Your task to perform on an android device: change notifications settings Image 0: 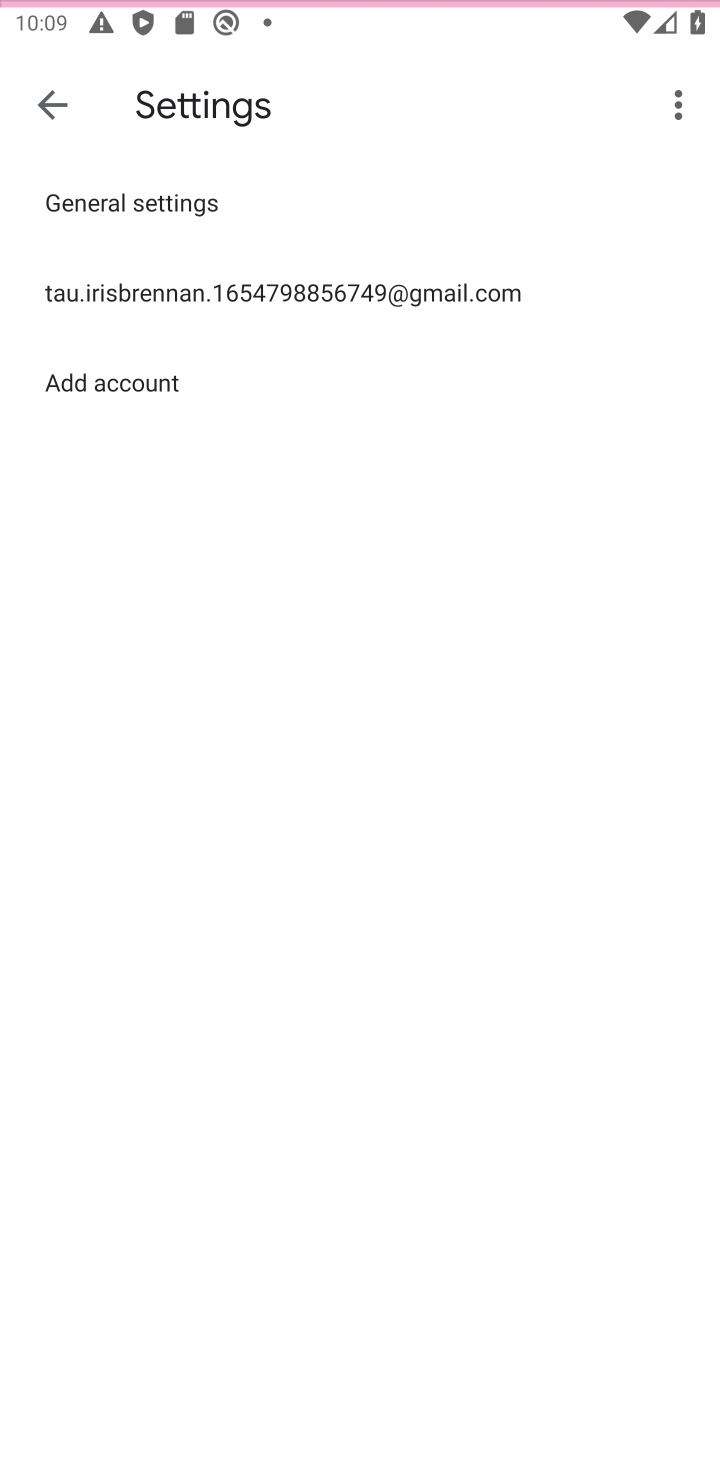
Step 0: press home button
Your task to perform on an android device: change notifications settings Image 1: 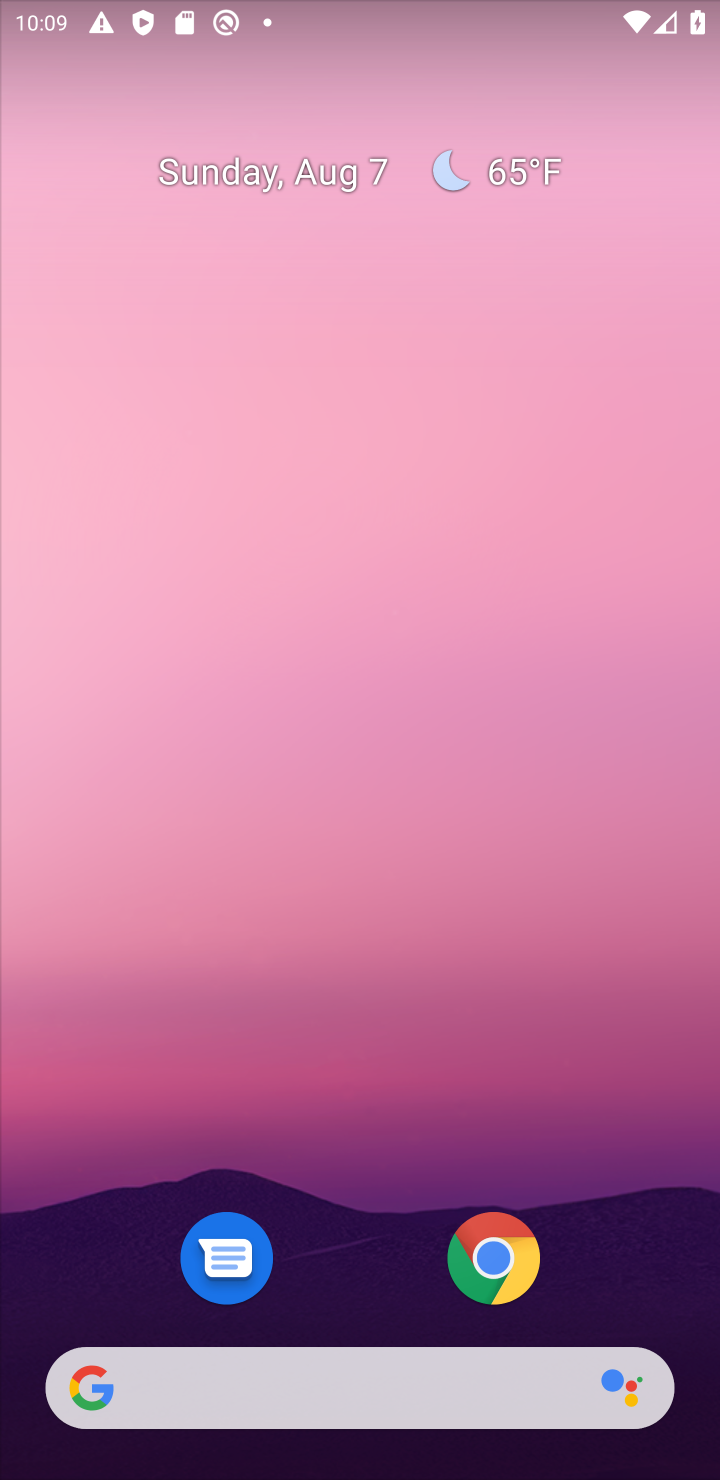
Step 1: drag from (583, 1221) to (432, 16)
Your task to perform on an android device: change notifications settings Image 2: 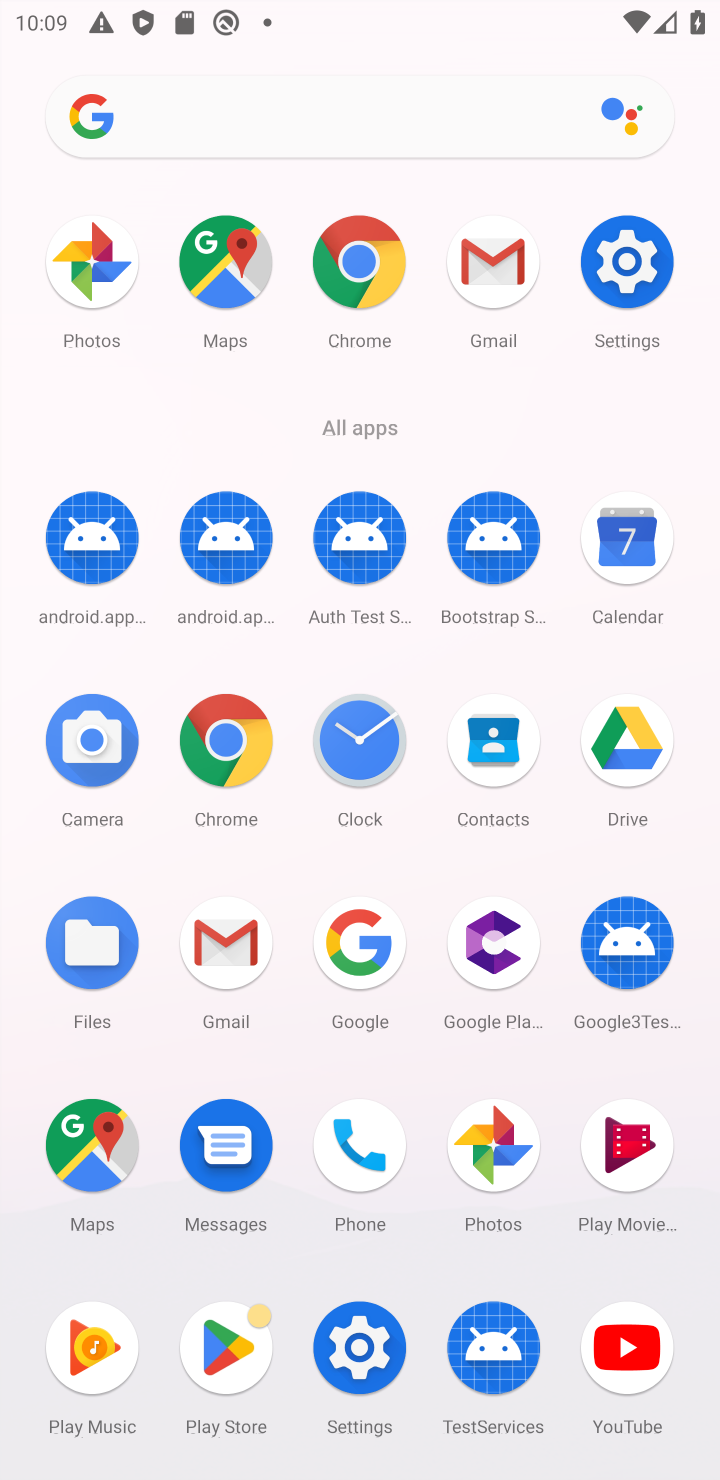
Step 2: click (350, 1378)
Your task to perform on an android device: change notifications settings Image 3: 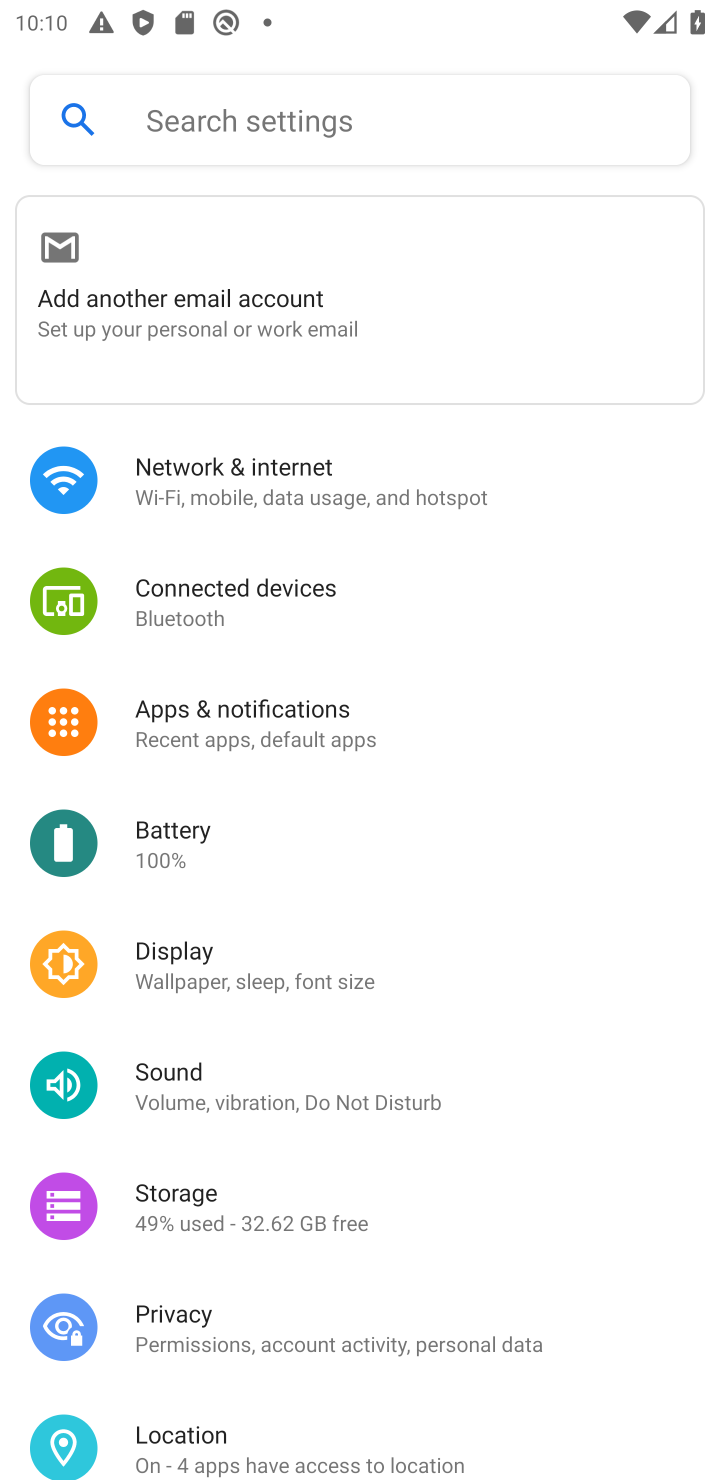
Step 3: click (153, 732)
Your task to perform on an android device: change notifications settings Image 4: 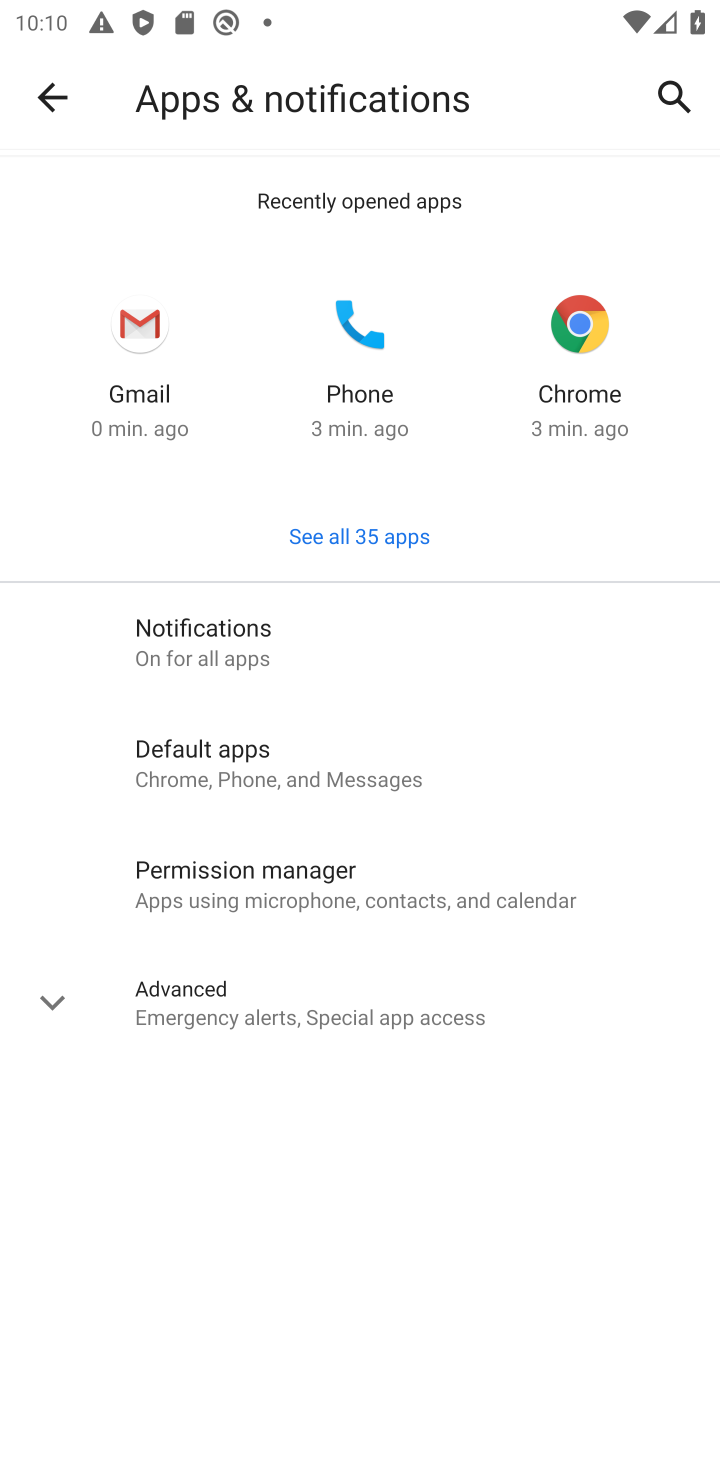
Step 4: click (130, 650)
Your task to perform on an android device: change notifications settings Image 5: 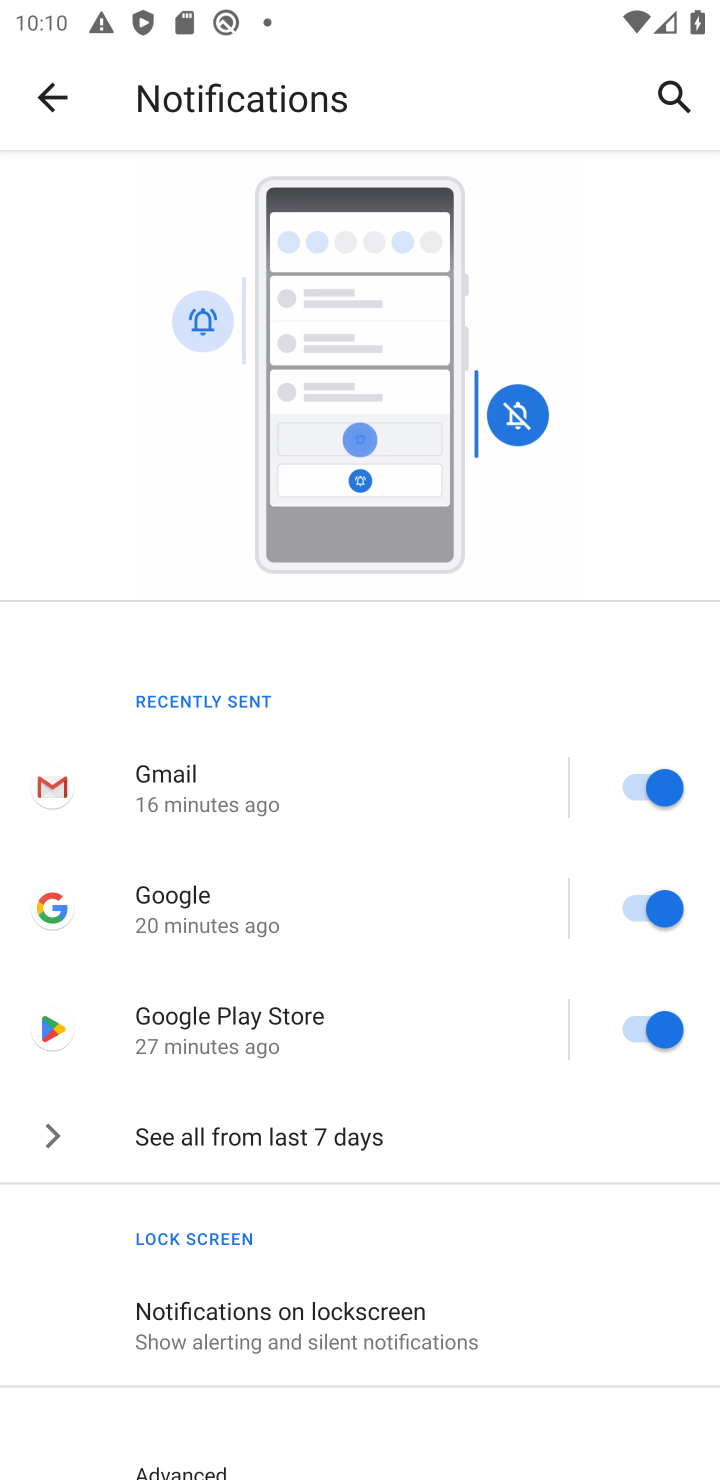
Step 5: task complete